Your task to perform on an android device: open the mobile data screen to see how much data has been used Image 0: 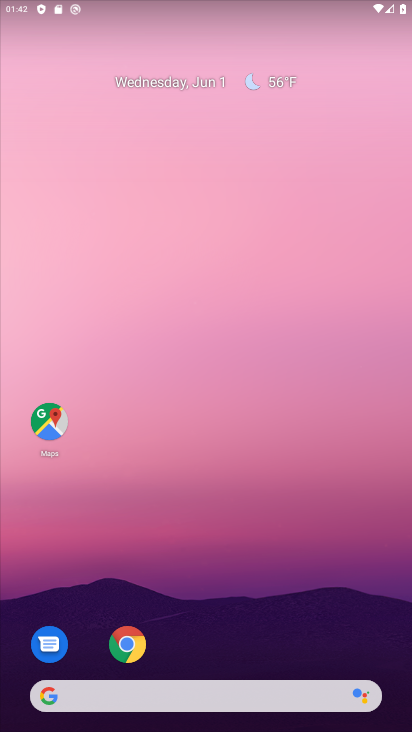
Step 0: click (131, 648)
Your task to perform on an android device: open the mobile data screen to see how much data has been used Image 1: 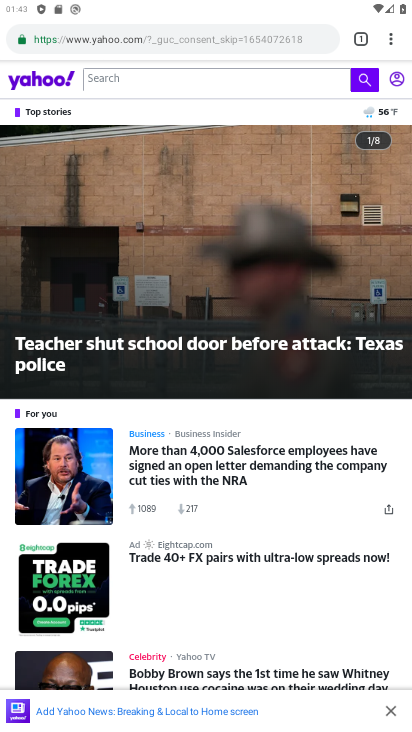
Step 1: press home button
Your task to perform on an android device: open the mobile data screen to see how much data has been used Image 2: 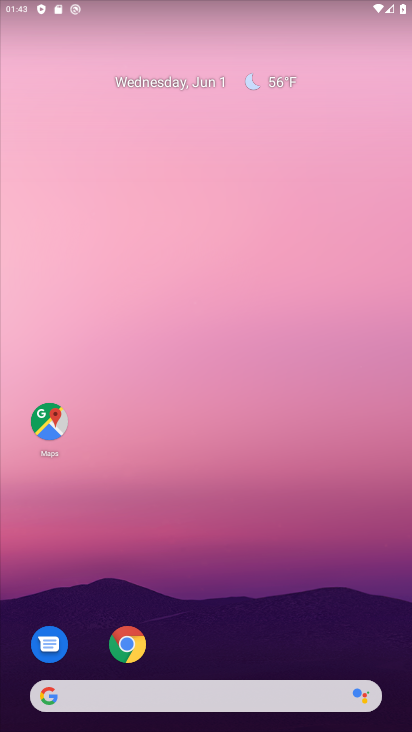
Step 2: drag from (223, 616) to (219, 347)
Your task to perform on an android device: open the mobile data screen to see how much data has been used Image 3: 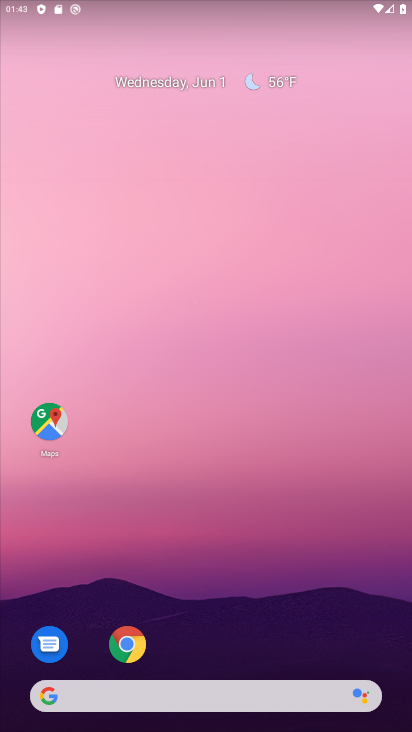
Step 3: drag from (273, 648) to (273, 306)
Your task to perform on an android device: open the mobile data screen to see how much data has been used Image 4: 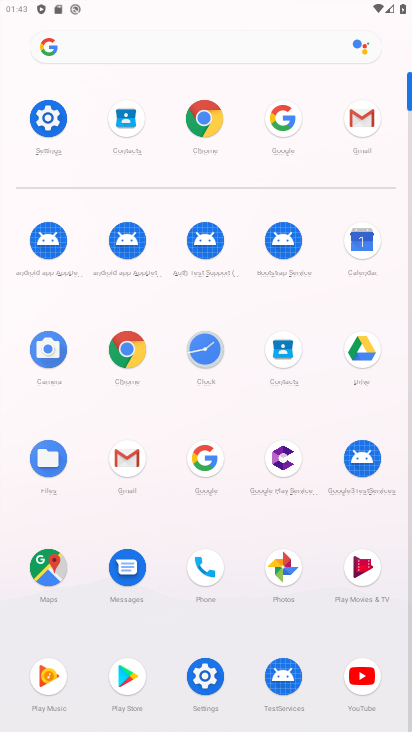
Step 4: click (46, 119)
Your task to perform on an android device: open the mobile data screen to see how much data has been used Image 5: 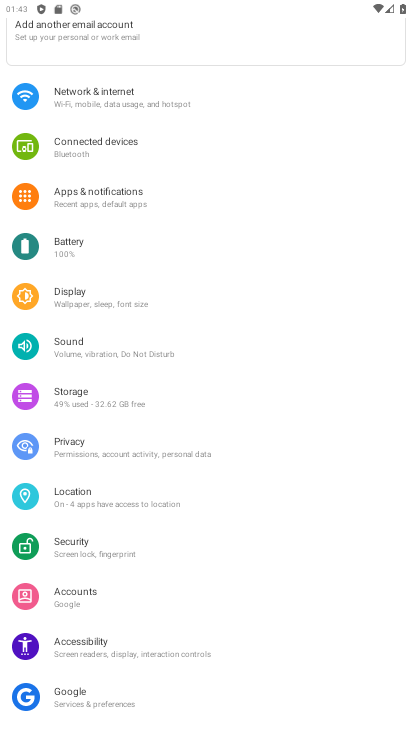
Step 5: click (119, 109)
Your task to perform on an android device: open the mobile data screen to see how much data has been used Image 6: 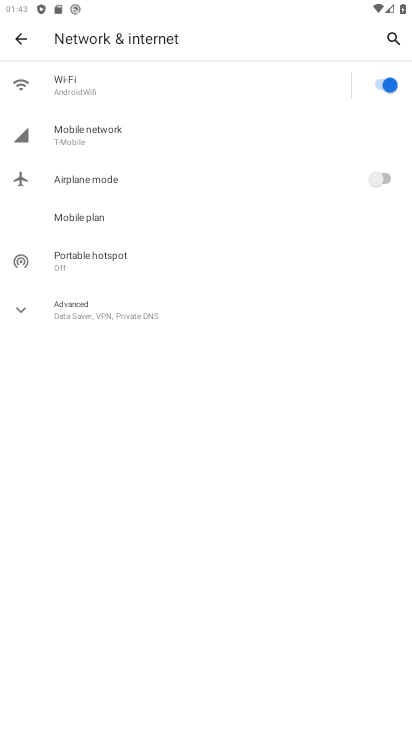
Step 6: click (97, 128)
Your task to perform on an android device: open the mobile data screen to see how much data has been used Image 7: 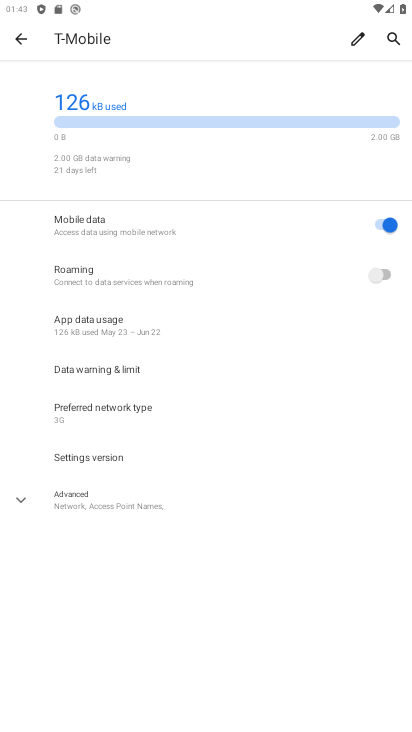
Step 7: task complete